Your task to perform on an android device: Open battery settings Image 0: 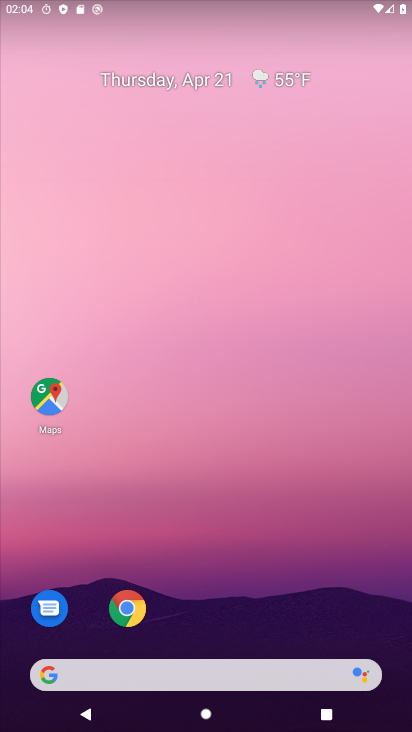
Step 0: drag from (228, 581) to (235, 74)
Your task to perform on an android device: Open battery settings Image 1: 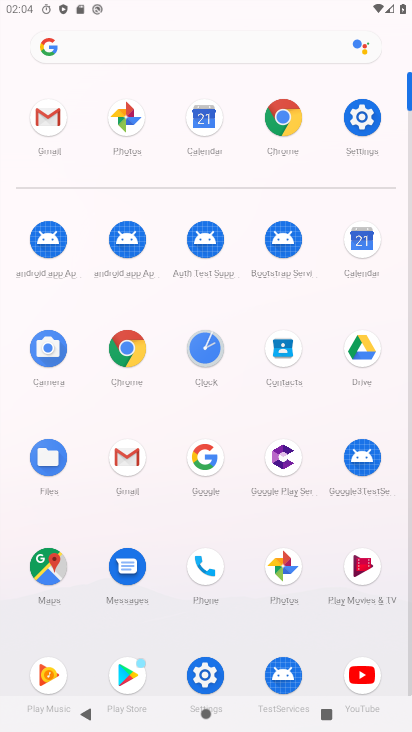
Step 1: click (357, 128)
Your task to perform on an android device: Open battery settings Image 2: 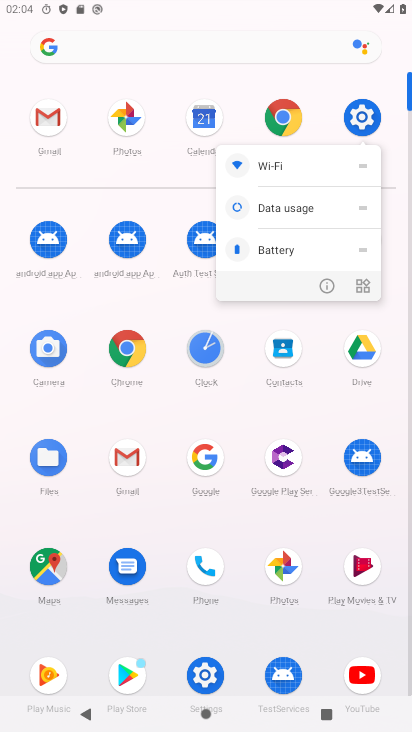
Step 2: click (263, 250)
Your task to perform on an android device: Open battery settings Image 3: 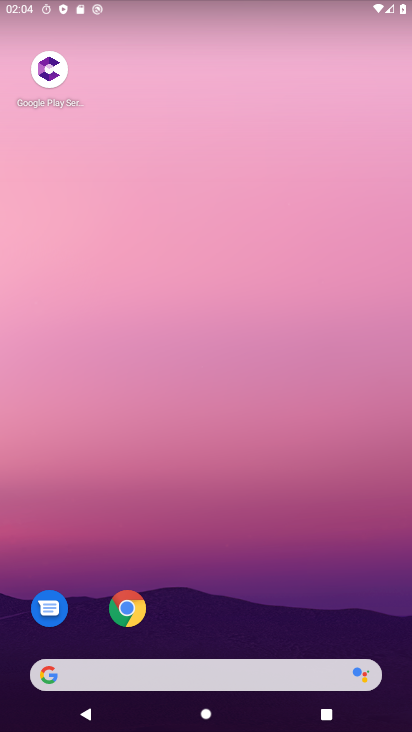
Step 3: drag from (209, 612) to (236, 121)
Your task to perform on an android device: Open battery settings Image 4: 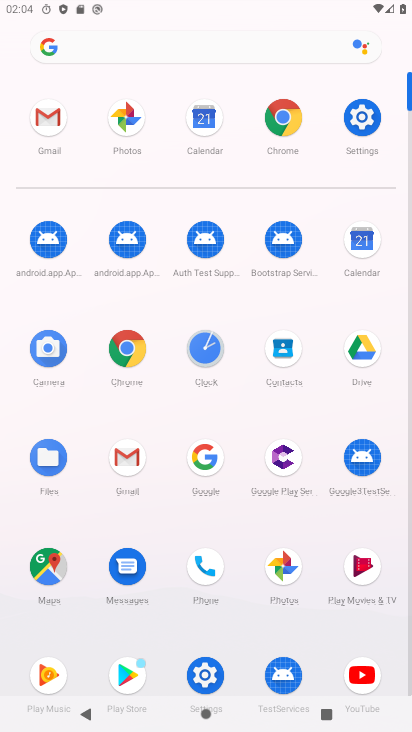
Step 4: click (366, 125)
Your task to perform on an android device: Open battery settings Image 5: 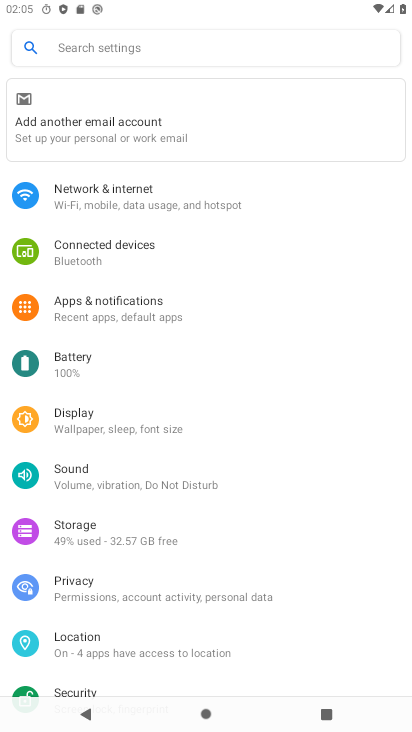
Step 5: click (71, 368)
Your task to perform on an android device: Open battery settings Image 6: 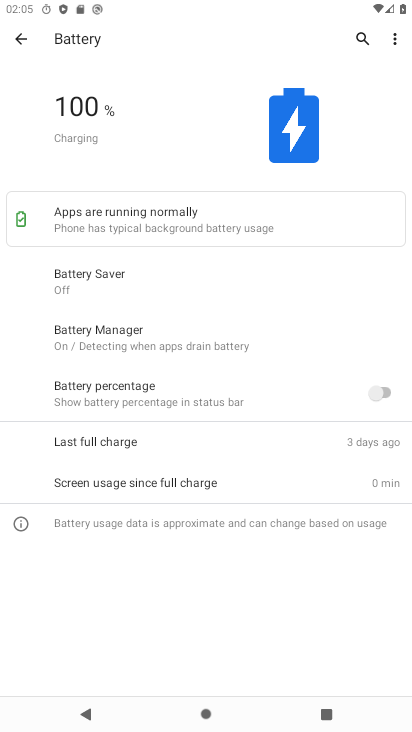
Step 6: task complete